Your task to perform on an android device: refresh tabs in the chrome app Image 0: 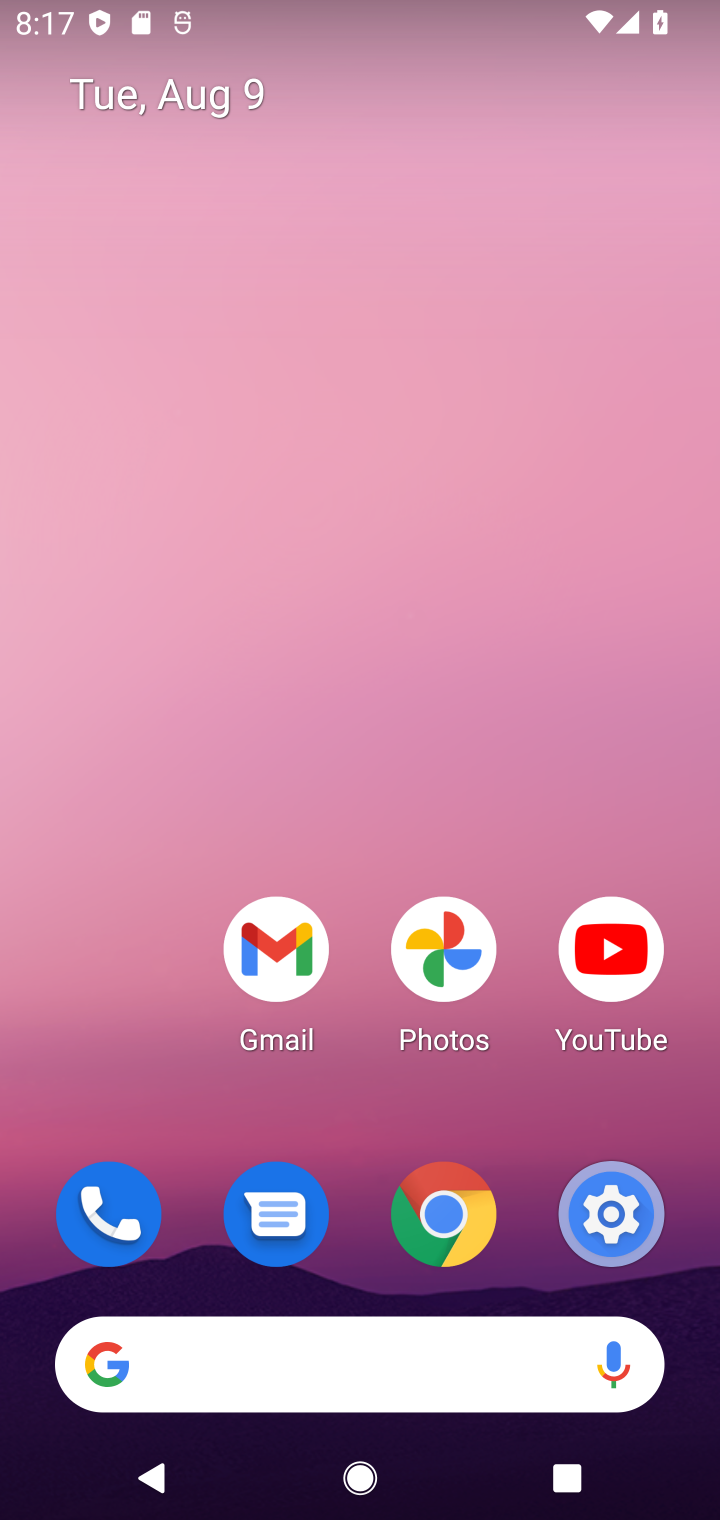
Step 0: click (443, 1223)
Your task to perform on an android device: refresh tabs in the chrome app Image 1: 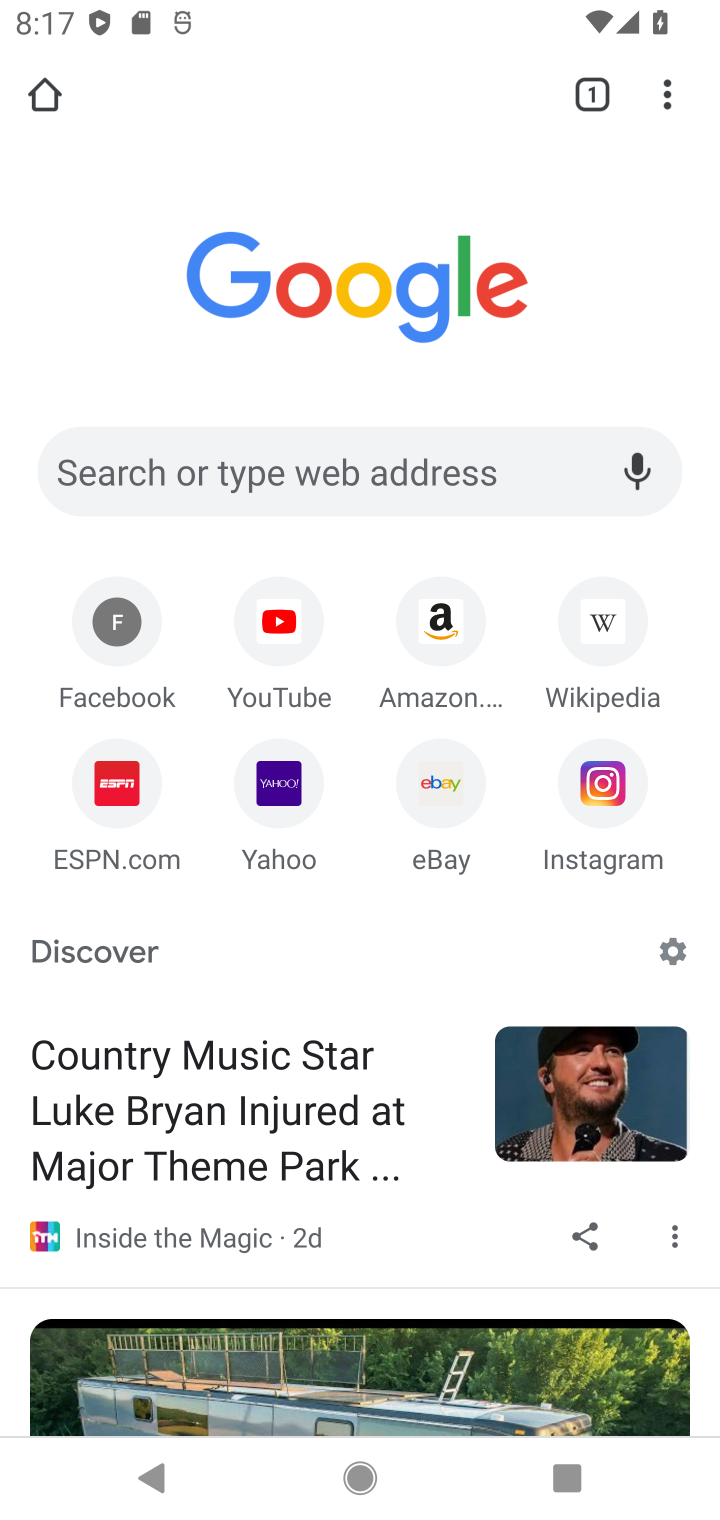
Step 1: click (658, 109)
Your task to perform on an android device: refresh tabs in the chrome app Image 2: 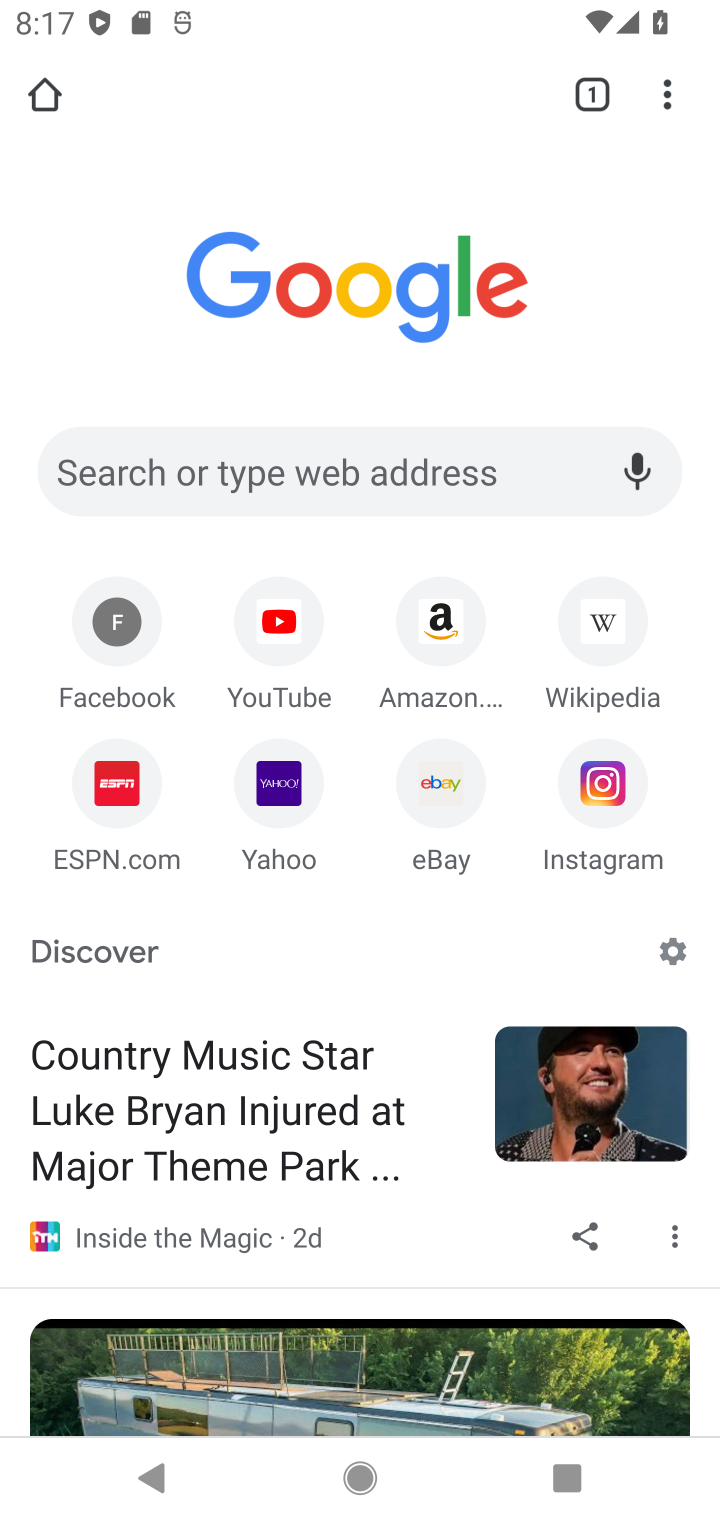
Step 2: click (666, 100)
Your task to perform on an android device: refresh tabs in the chrome app Image 3: 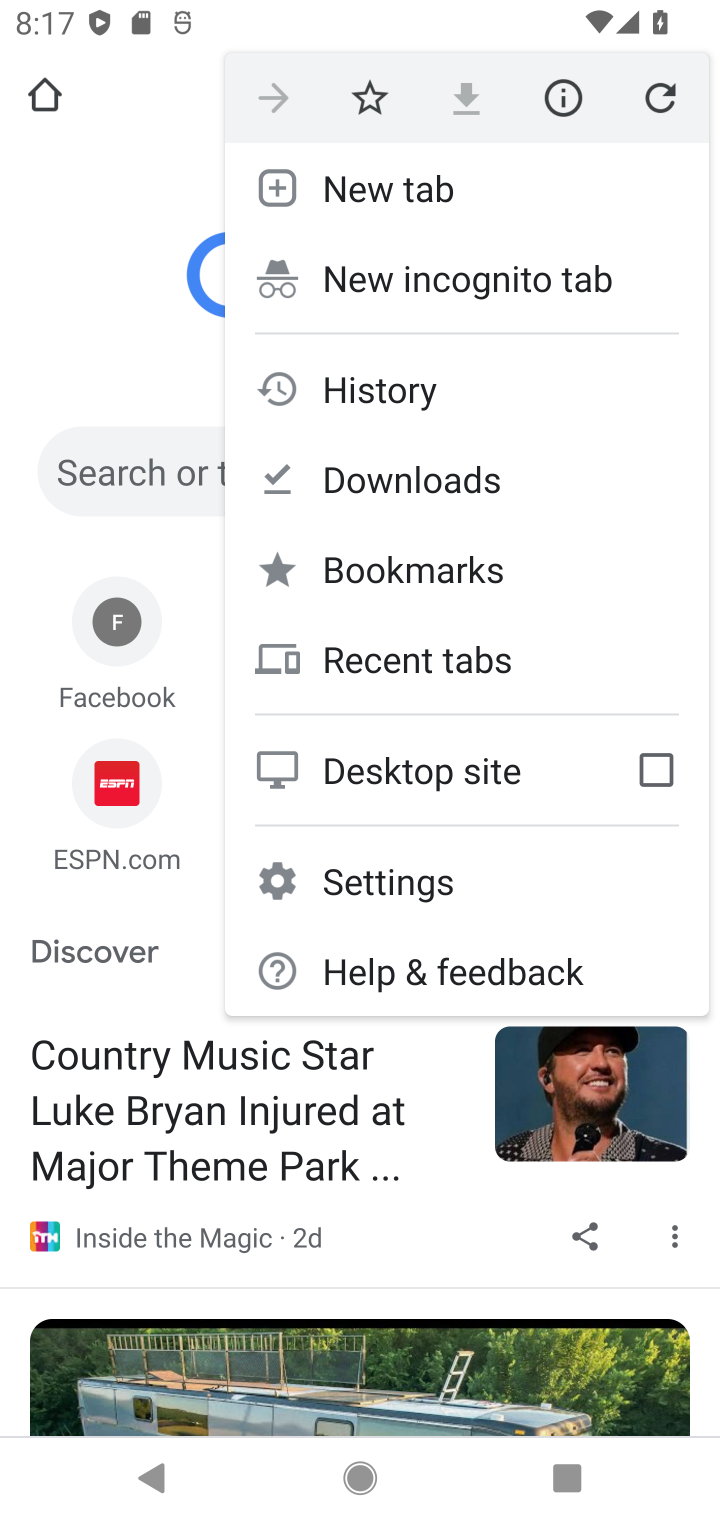
Step 3: click (662, 98)
Your task to perform on an android device: refresh tabs in the chrome app Image 4: 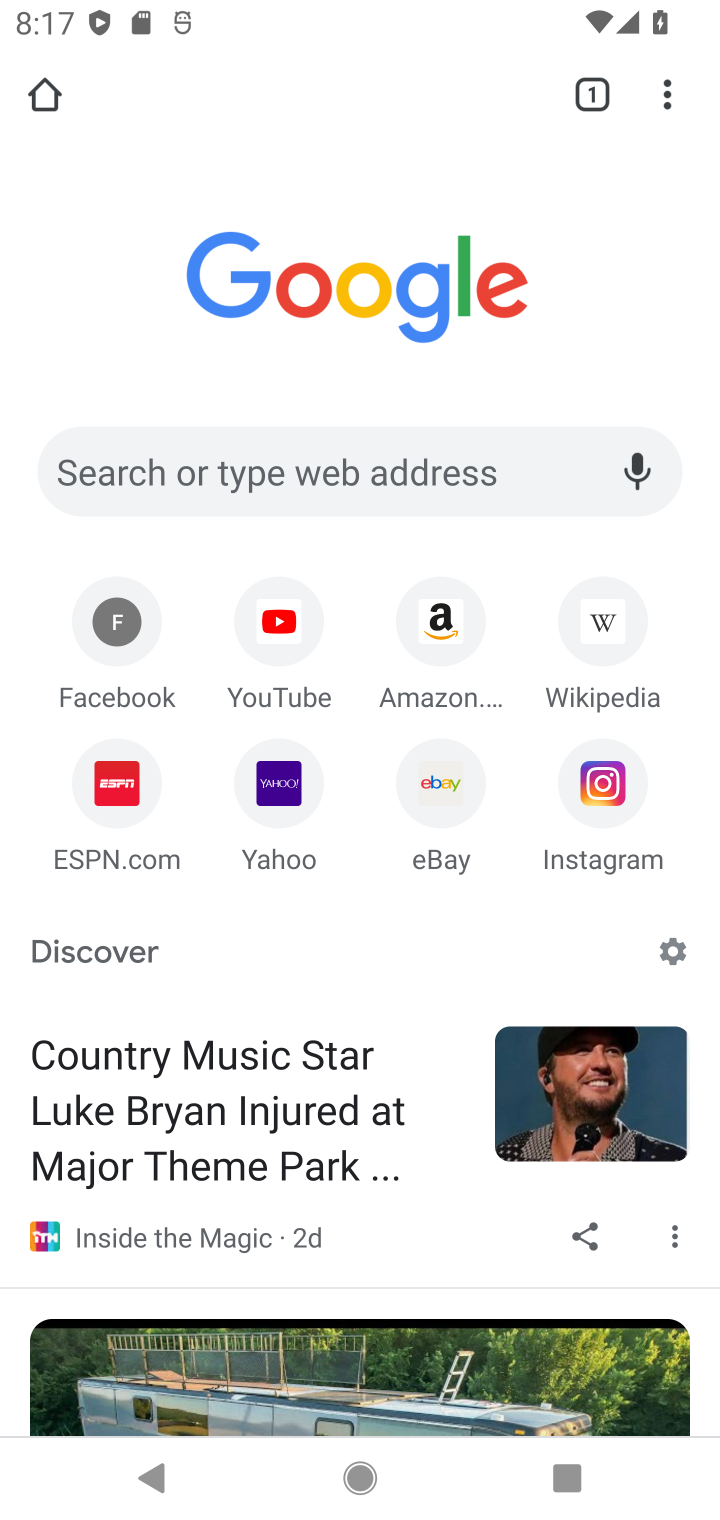
Step 4: task complete